Your task to perform on an android device: Open Reddit.com Image 0: 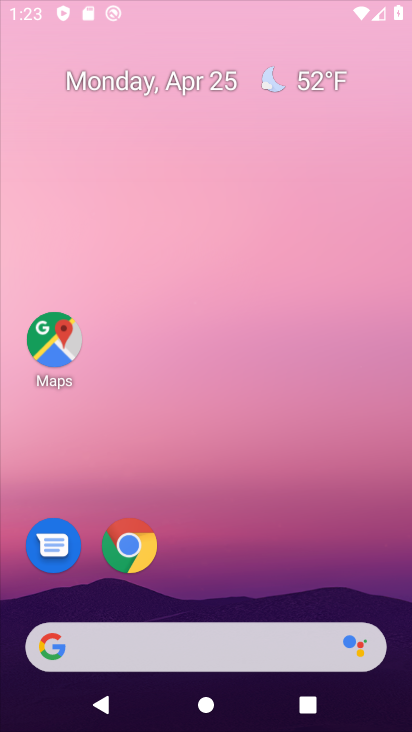
Step 0: click (311, 143)
Your task to perform on an android device: Open Reddit.com Image 1: 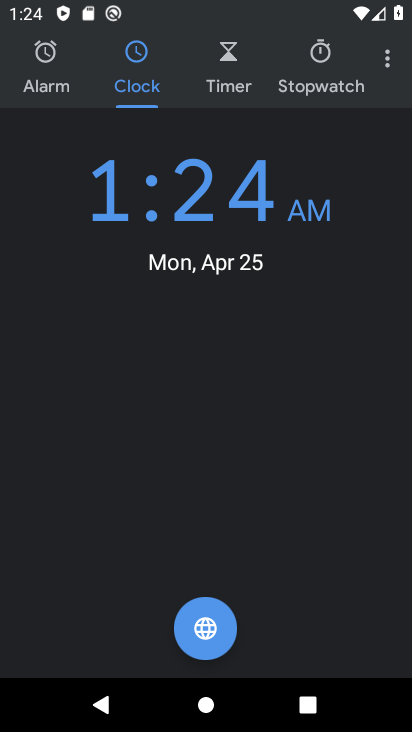
Step 1: press home button
Your task to perform on an android device: Open Reddit.com Image 2: 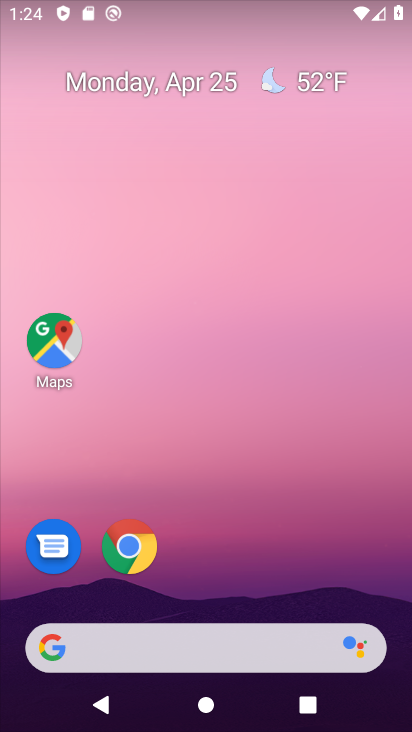
Step 2: click (138, 571)
Your task to perform on an android device: Open Reddit.com Image 3: 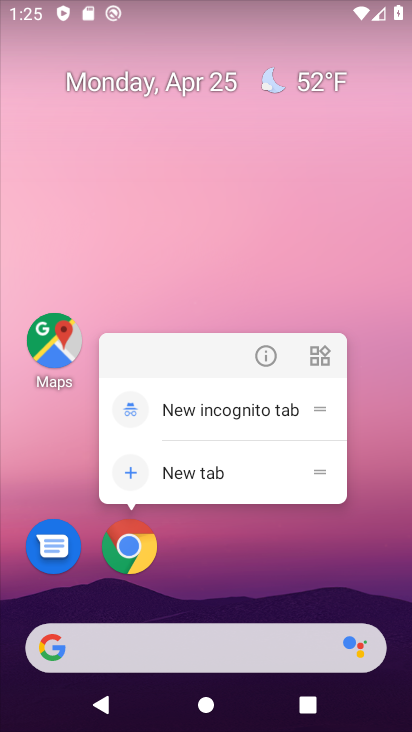
Step 3: click (118, 559)
Your task to perform on an android device: Open Reddit.com Image 4: 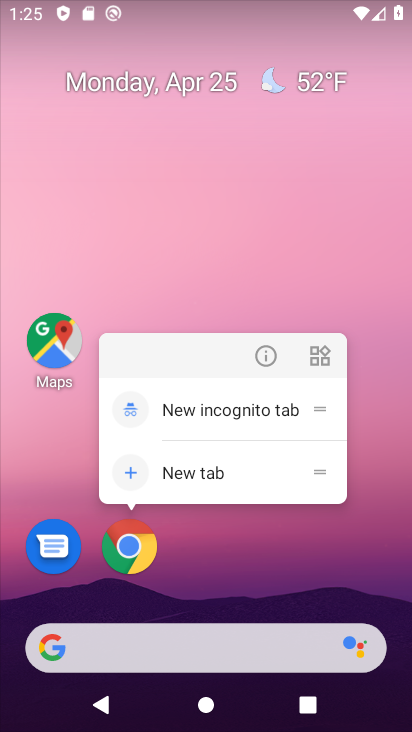
Step 4: click (124, 573)
Your task to perform on an android device: Open Reddit.com Image 5: 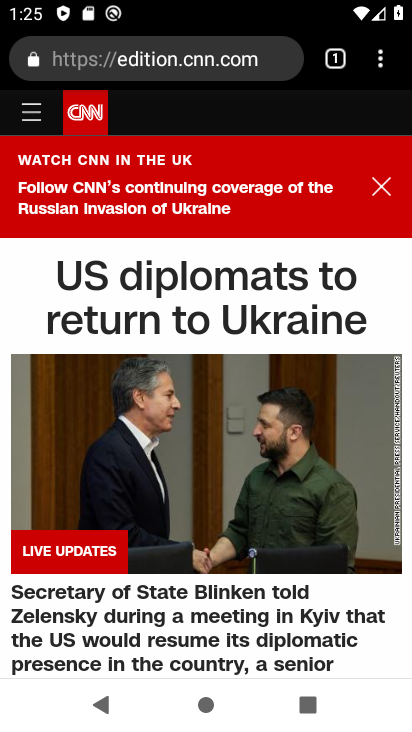
Step 5: click (187, 54)
Your task to perform on an android device: Open Reddit.com Image 6: 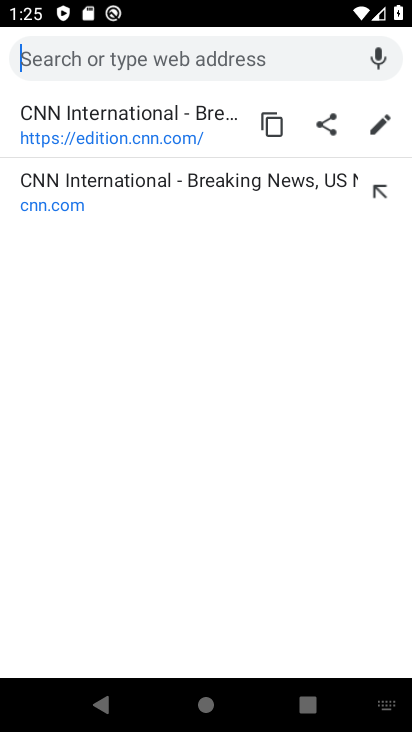
Step 6: type "reddit.com"
Your task to perform on an android device: Open Reddit.com Image 7: 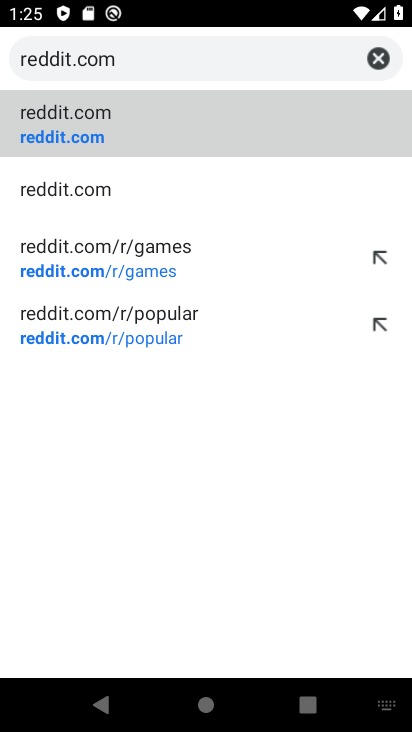
Step 7: click (281, 131)
Your task to perform on an android device: Open Reddit.com Image 8: 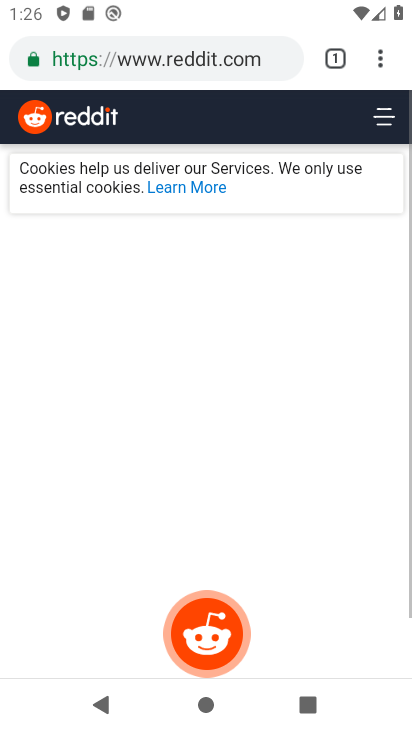
Step 8: task complete